Your task to perform on an android device: turn off notifications settings in the gmail app Image 0: 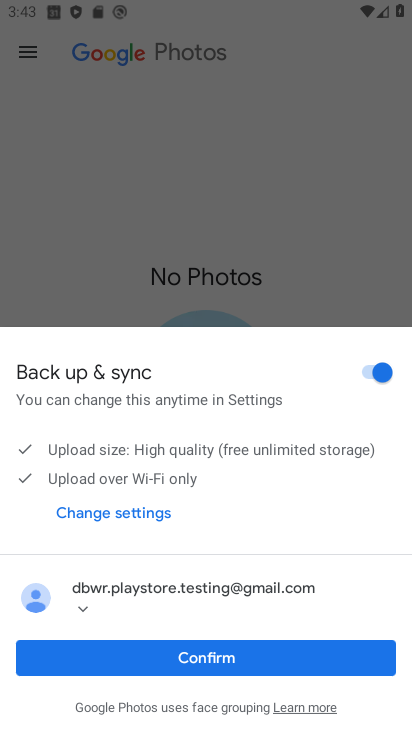
Step 0: press home button
Your task to perform on an android device: turn off notifications settings in the gmail app Image 1: 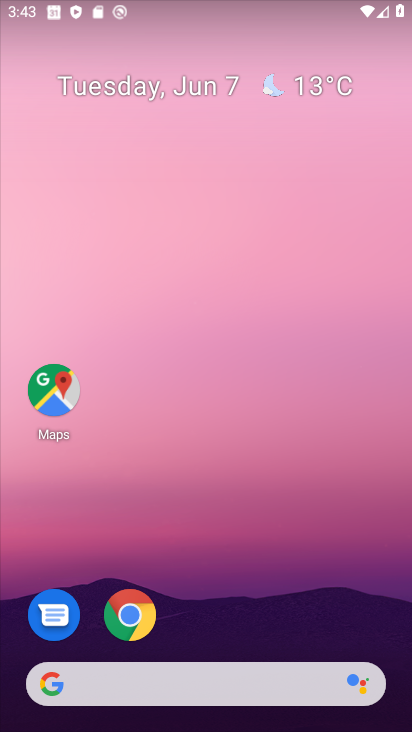
Step 1: drag from (233, 615) to (294, 10)
Your task to perform on an android device: turn off notifications settings in the gmail app Image 2: 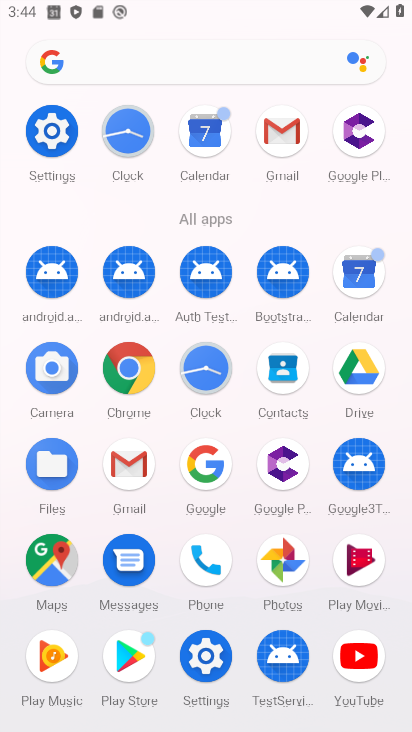
Step 2: click (123, 461)
Your task to perform on an android device: turn off notifications settings in the gmail app Image 3: 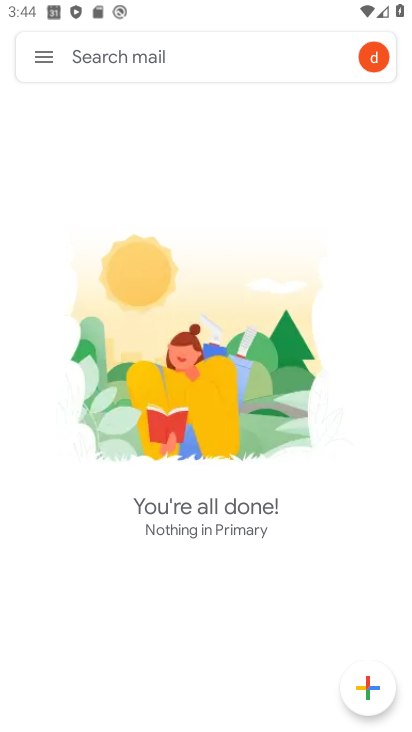
Step 3: click (45, 48)
Your task to perform on an android device: turn off notifications settings in the gmail app Image 4: 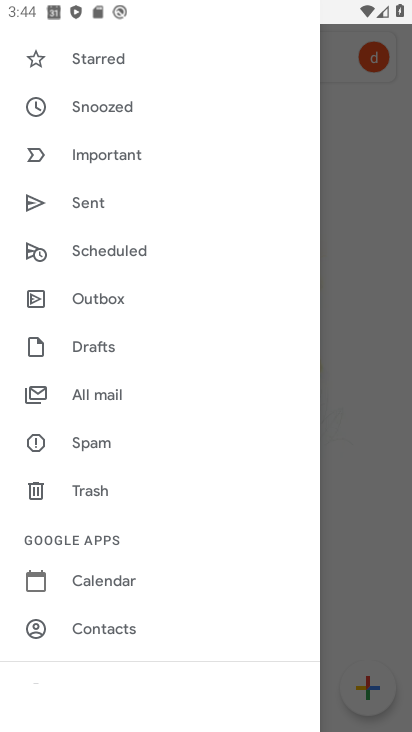
Step 4: drag from (114, 605) to (182, 276)
Your task to perform on an android device: turn off notifications settings in the gmail app Image 5: 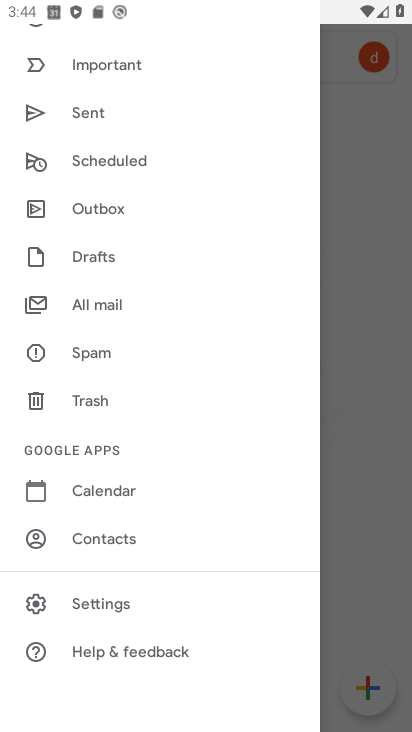
Step 5: click (106, 602)
Your task to perform on an android device: turn off notifications settings in the gmail app Image 6: 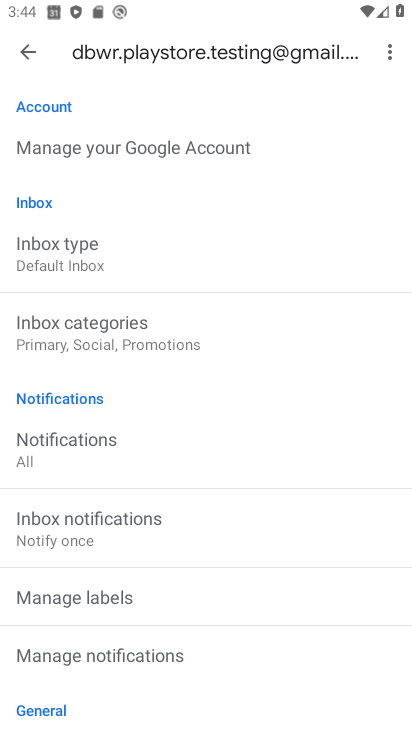
Step 6: click (23, 49)
Your task to perform on an android device: turn off notifications settings in the gmail app Image 7: 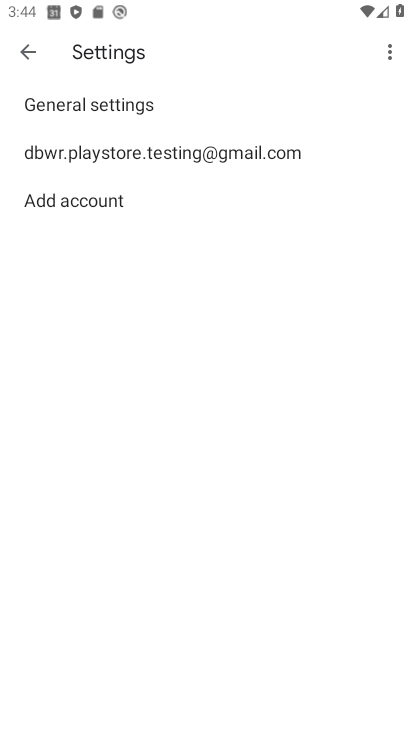
Step 7: click (148, 105)
Your task to perform on an android device: turn off notifications settings in the gmail app Image 8: 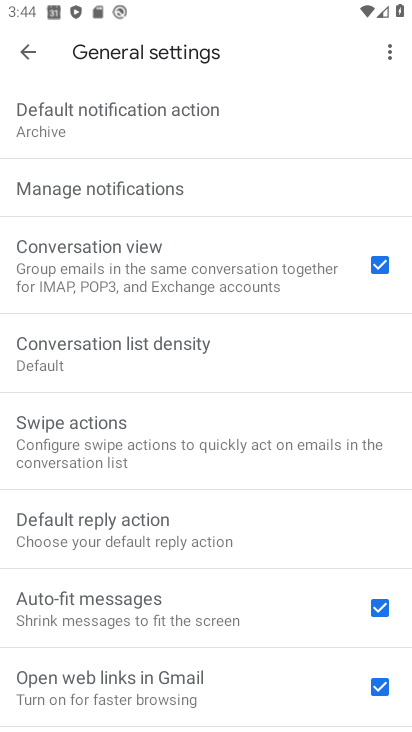
Step 8: click (160, 178)
Your task to perform on an android device: turn off notifications settings in the gmail app Image 9: 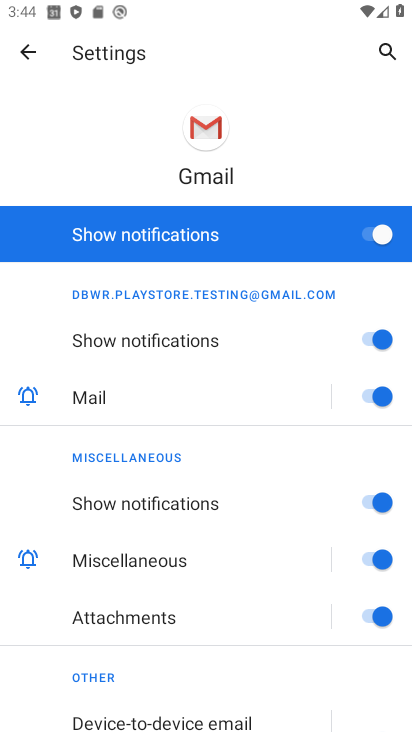
Step 9: click (331, 232)
Your task to perform on an android device: turn off notifications settings in the gmail app Image 10: 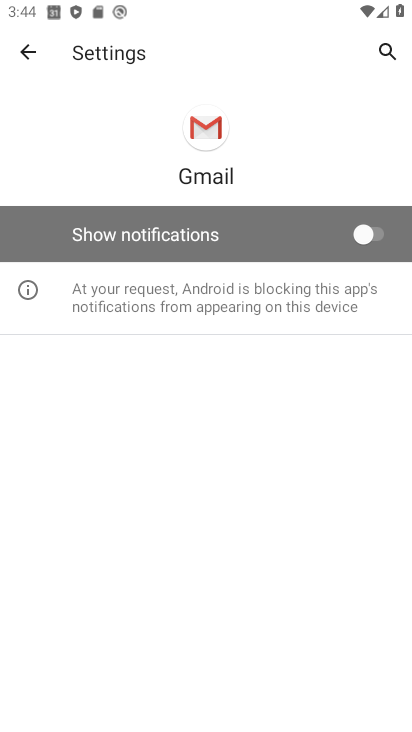
Step 10: task complete